Your task to perform on an android device: Go to ESPN.com Image 0: 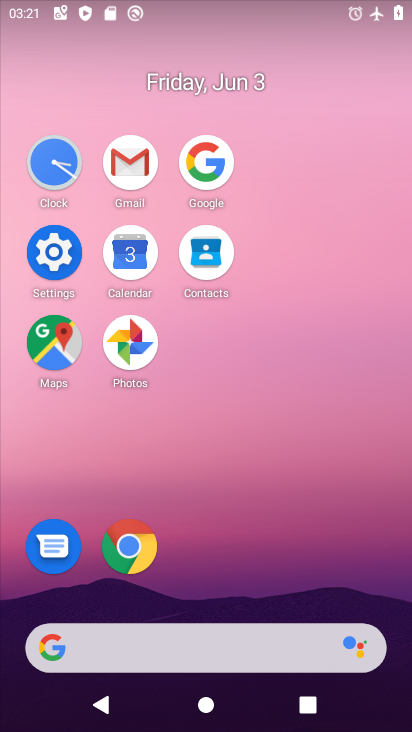
Step 0: press home button
Your task to perform on an android device: Go to ESPN.com Image 1: 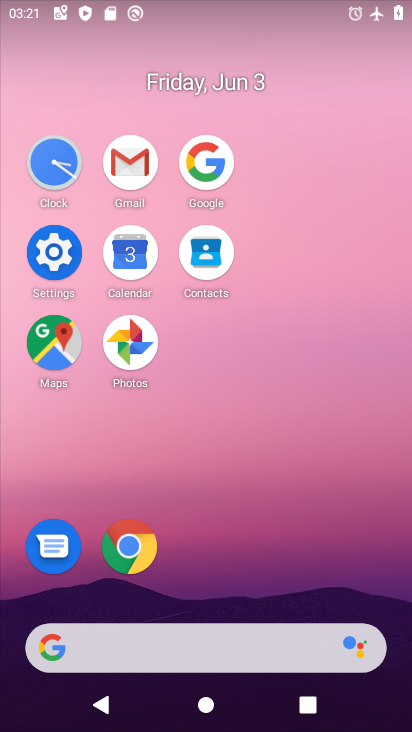
Step 1: click (130, 547)
Your task to perform on an android device: Go to ESPN.com Image 2: 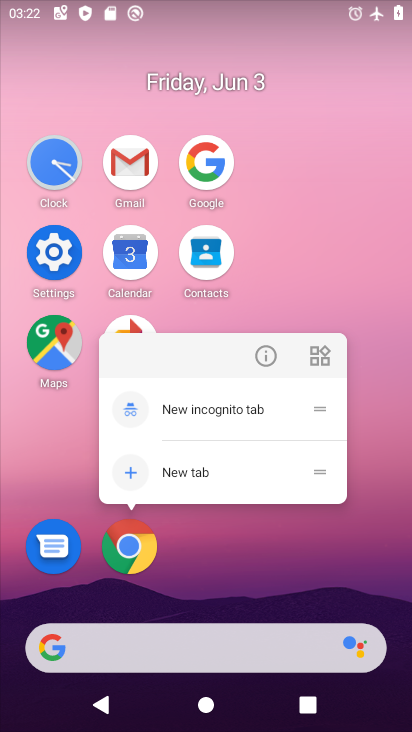
Step 2: click (129, 552)
Your task to perform on an android device: Go to ESPN.com Image 3: 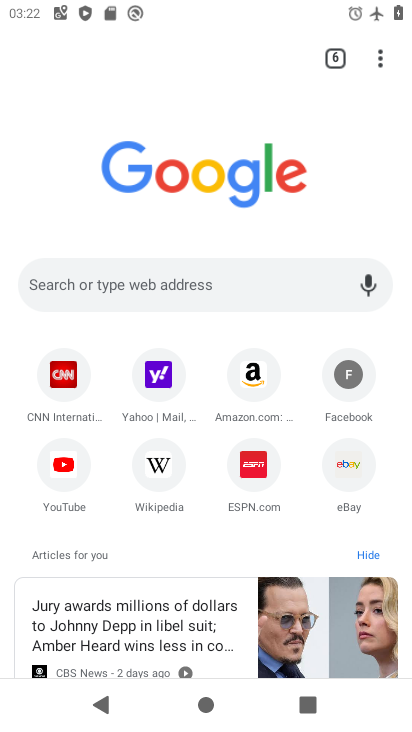
Step 3: click (253, 466)
Your task to perform on an android device: Go to ESPN.com Image 4: 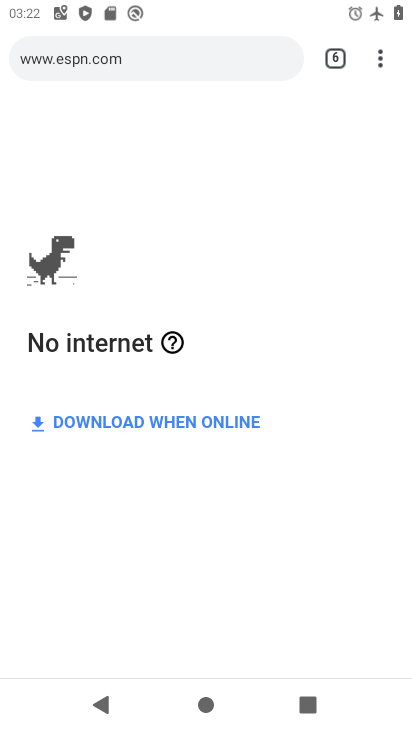
Step 4: task complete